Your task to perform on an android device: Open Reddit.com Image 0: 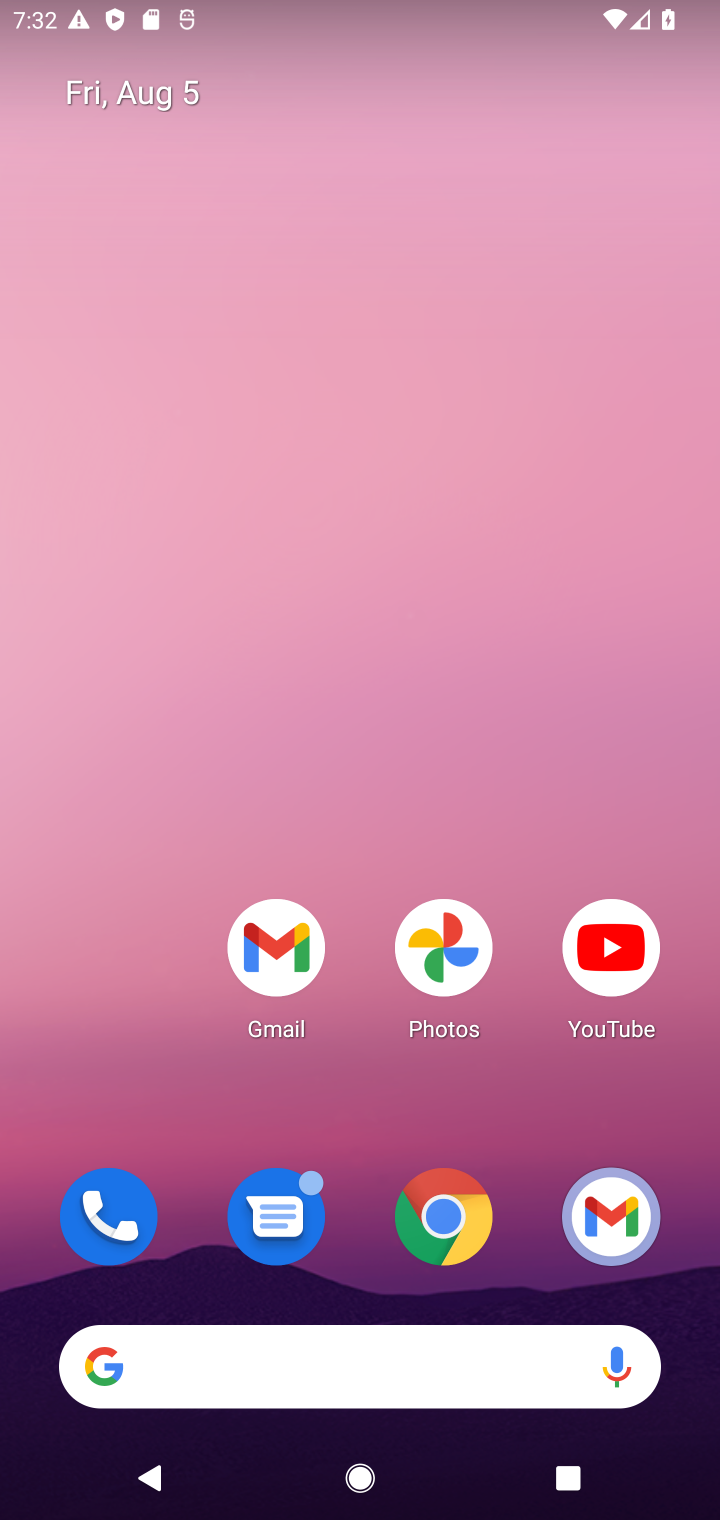
Step 0: click (453, 1207)
Your task to perform on an android device: Open Reddit.com Image 1: 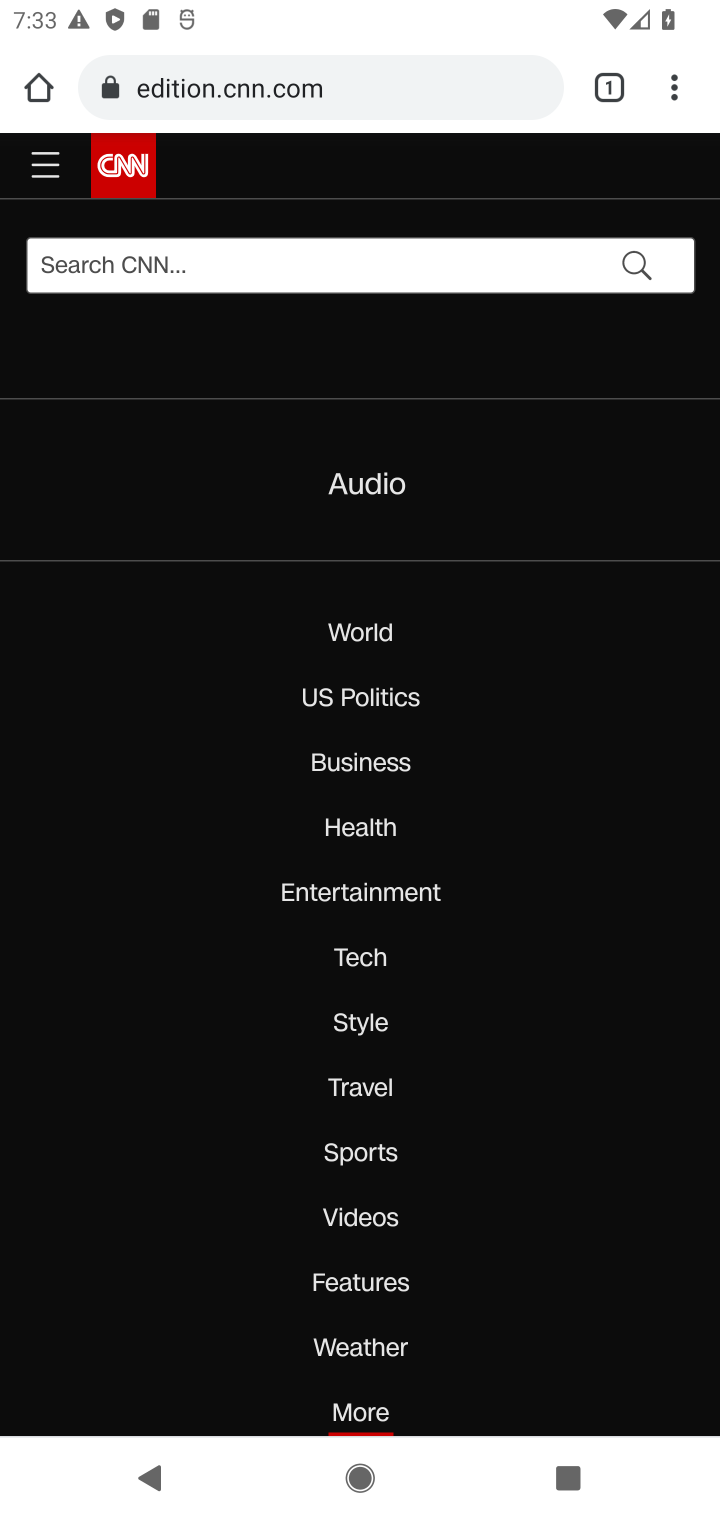
Step 1: click (386, 94)
Your task to perform on an android device: Open Reddit.com Image 2: 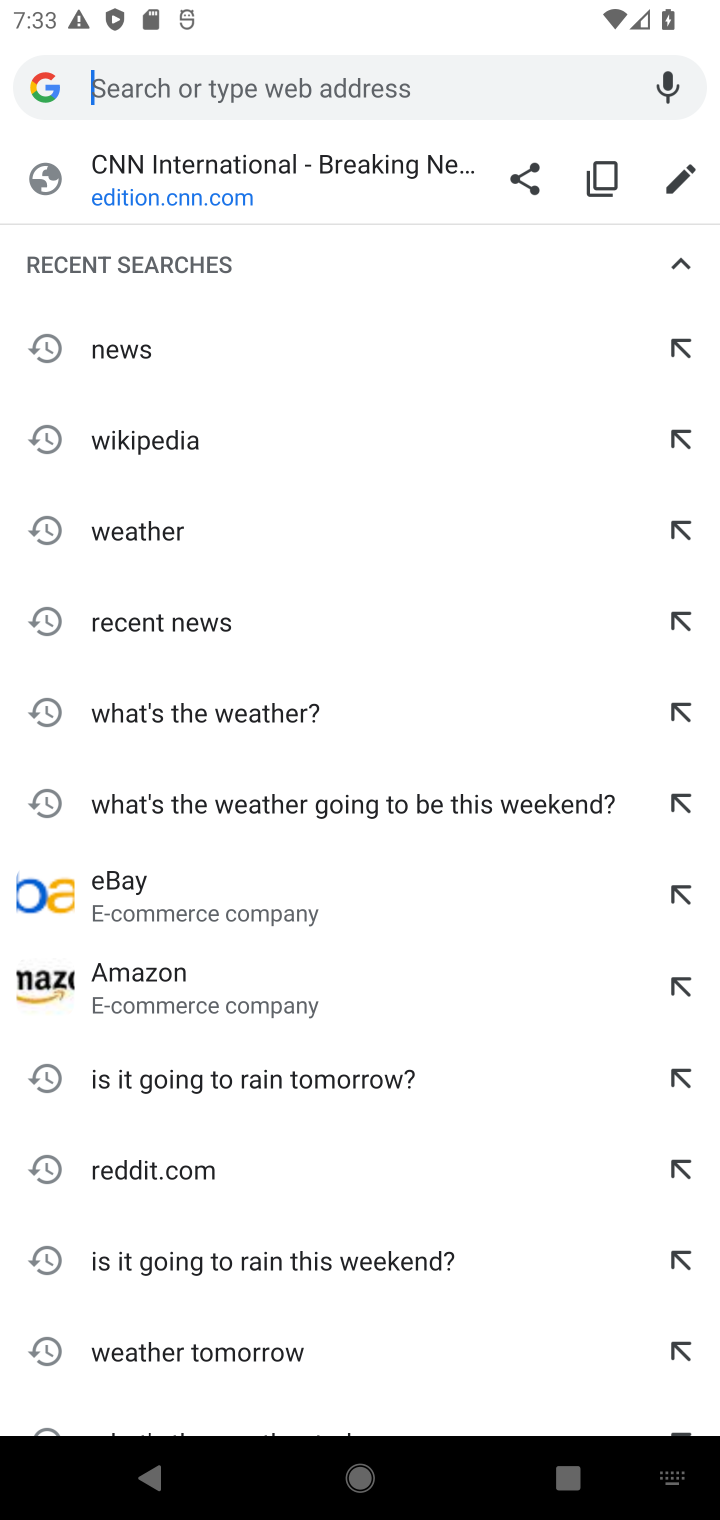
Step 2: type "Reddit.com"
Your task to perform on an android device: Open Reddit.com Image 3: 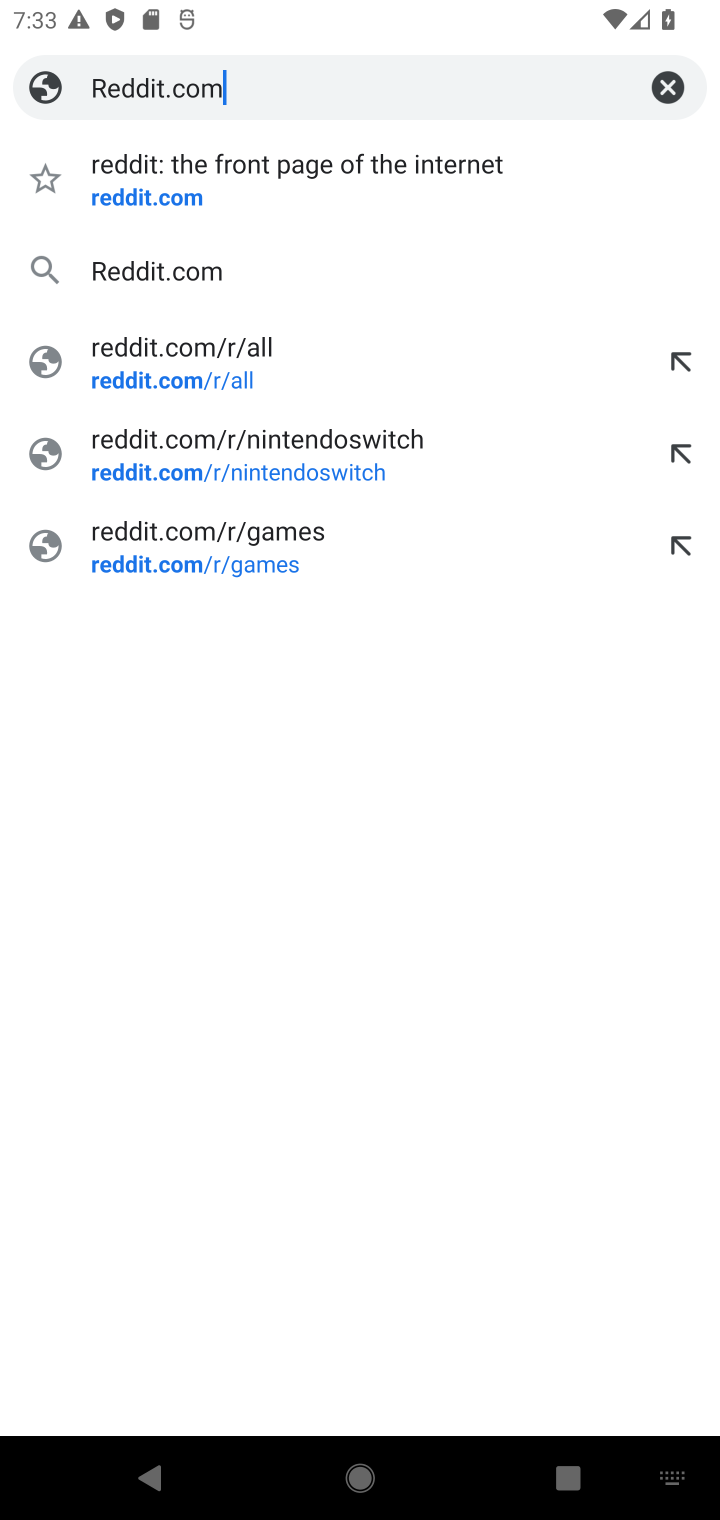
Step 3: click (225, 280)
Your task to perform on an android device: Open Reddit.com Image 4: 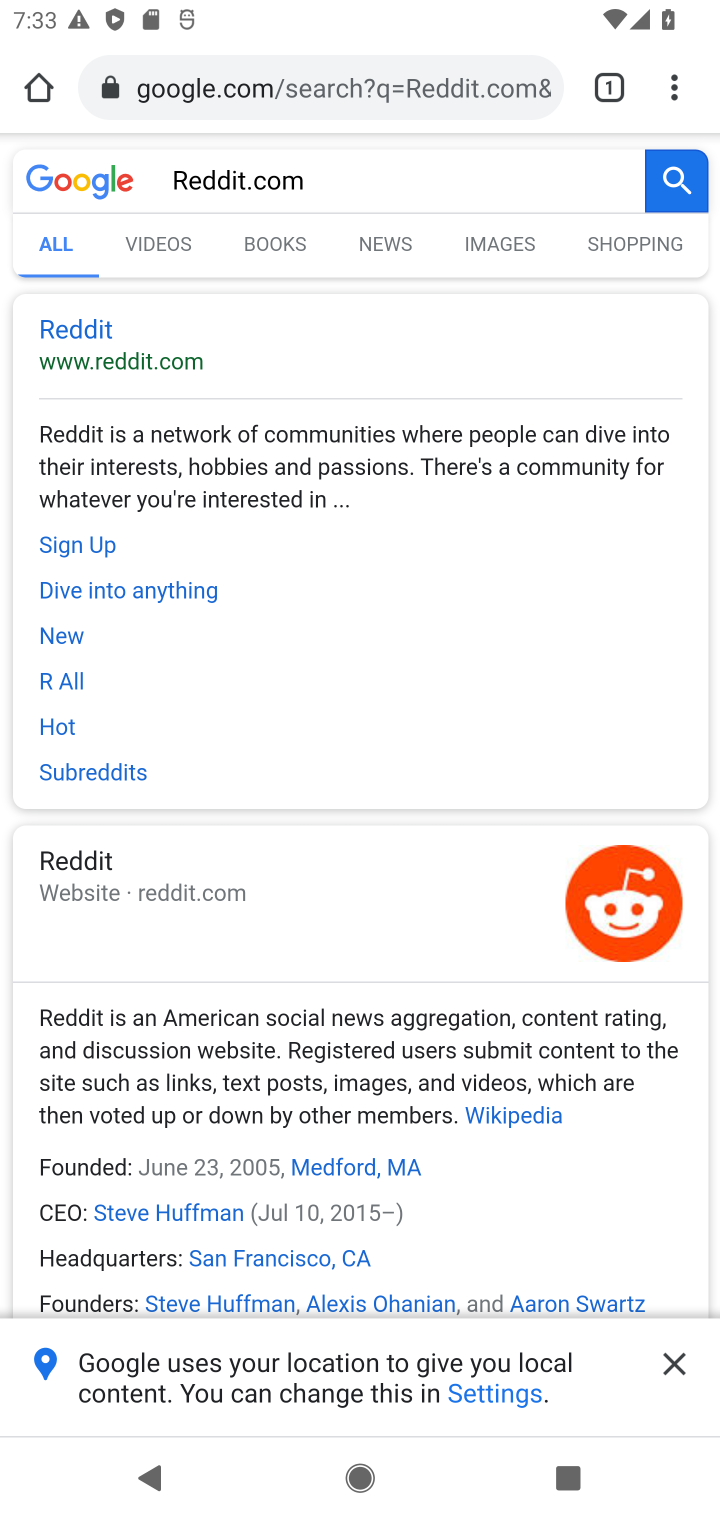
Step 4: click (74, 335)
Your task to perform on an android device: Open Reddit.com Image 5: 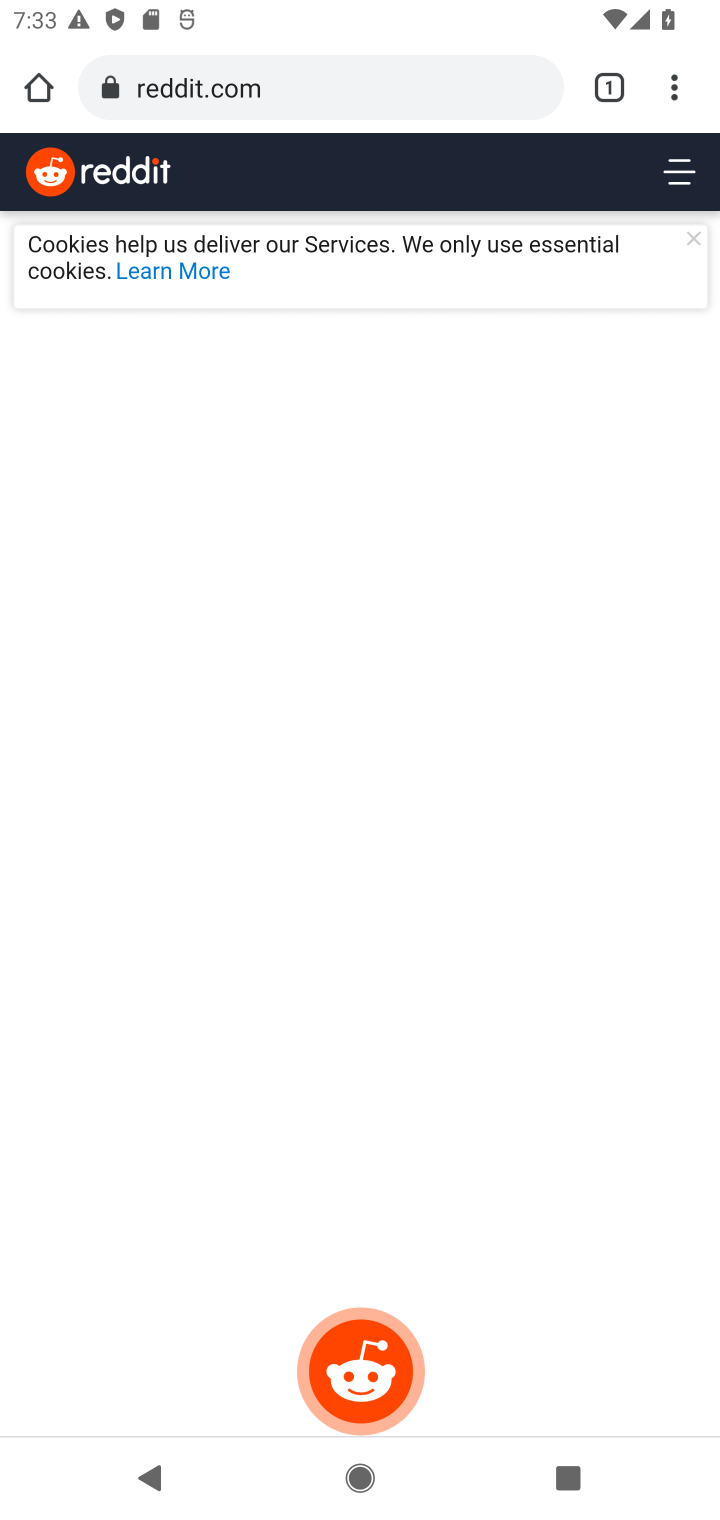
Step 5: task complete